Your task to perform on an android device: change notification settings in the gmail app Image 0: 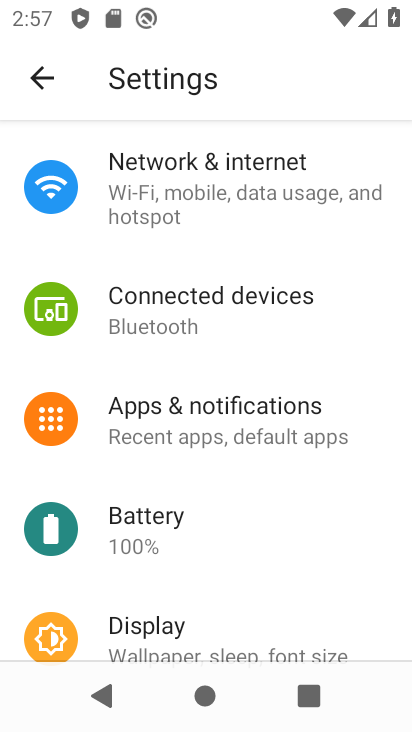
Step 0: press home button
Your task to perform on an android device: change notification settings in the gmail app Image 1: 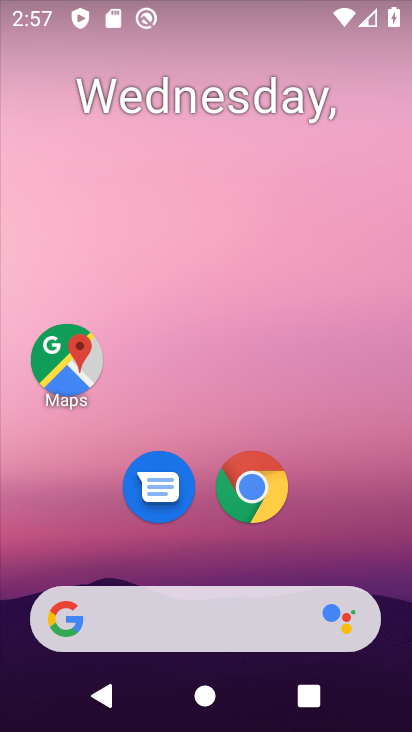
Step 1: drag from (337, 533) to (313, 130)
Your task to perform on an android device: change notification settings in the gmail app Image 2: 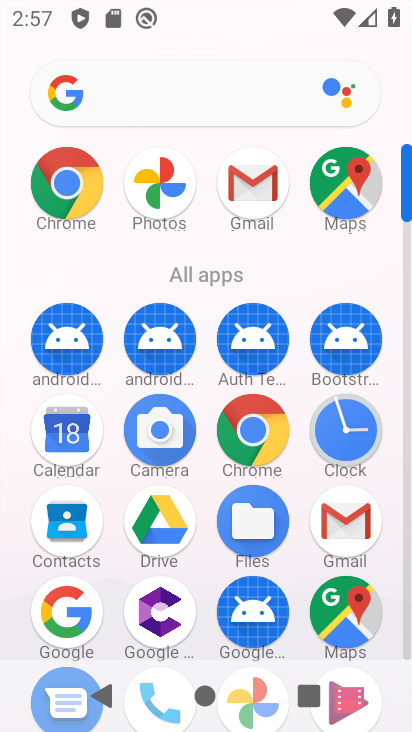
Step 2: click (359, 527)
Your task to perform on an android device: change notification settings in the gmail app Image 3: 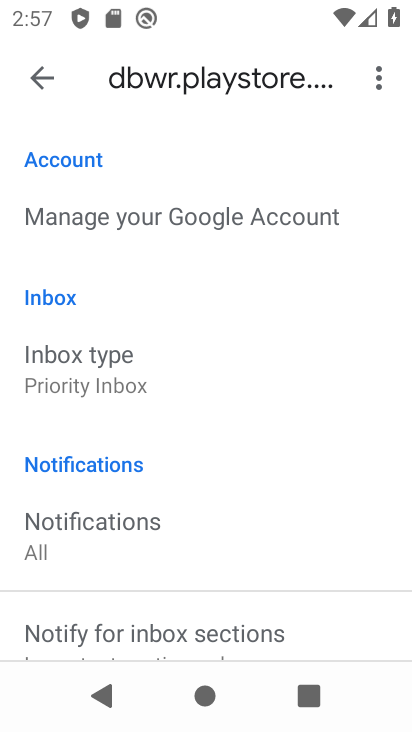
Step 3: drag from (359, 575) to (350, 374)
Your task to perform on an android device: change notification settings in the gmail app Image 4: 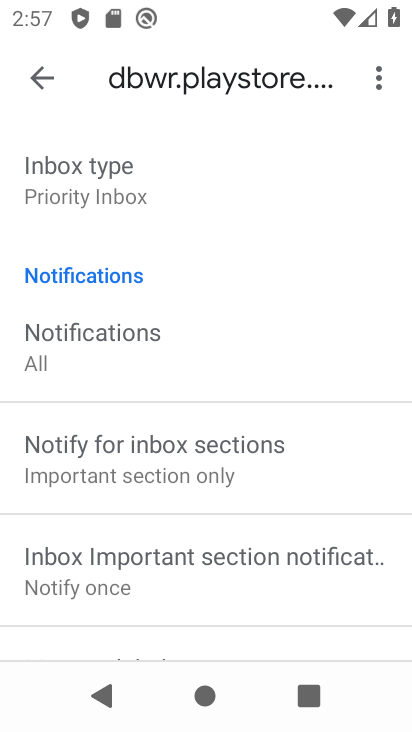
Step 4: drag from (365, 608) to (377, 396)
Your task to perform on an android device: change notification settings in the gmail app Image 5: 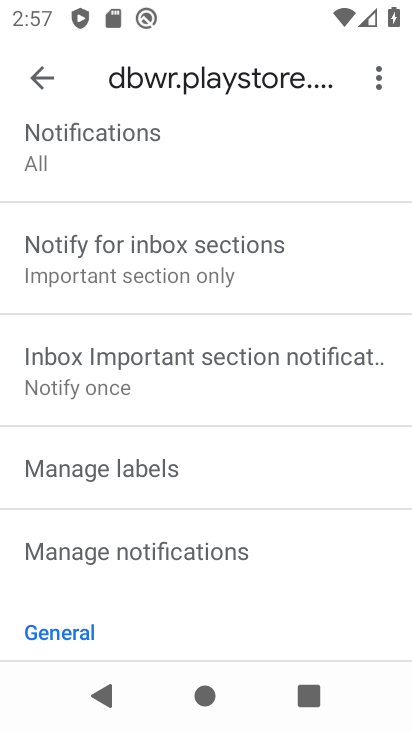
Step 5: drag from (355, 589) to (364, 419)
Your task to perform on an android device: change notification settings in the gmail app Image 6: 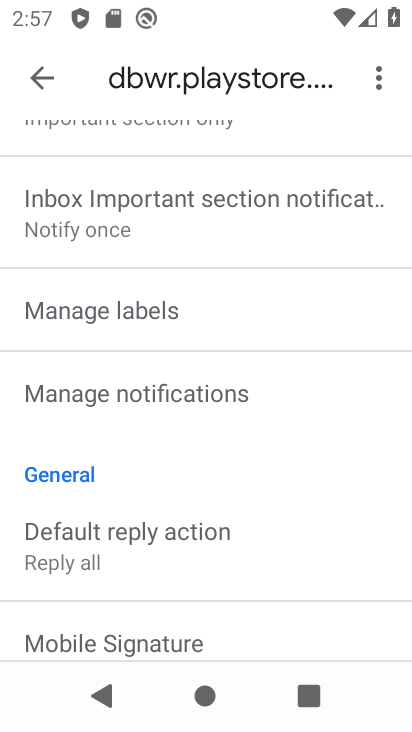
Step 6: drag from (348, 571) to (362, 407)
Your task to perform on an android device: change notification settings in the gmail app Image 7: 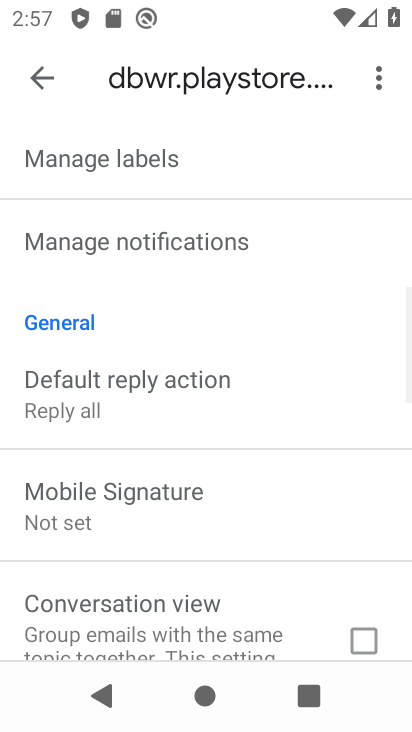
Step 7: drag from (342, 586) to (339, 393)
Your task to perform on an android device: change notification settings in the gmail app Image 8: 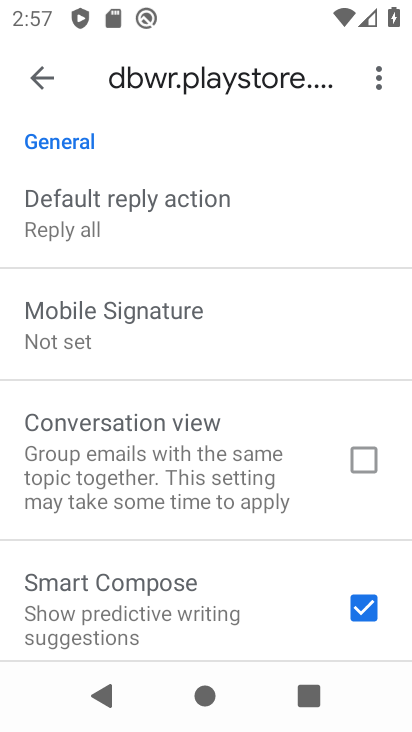
Step 8: drag from (300, 584) to (323, 414)
Your task to perform on an android device: change notification settings in the gmail app Image 9: 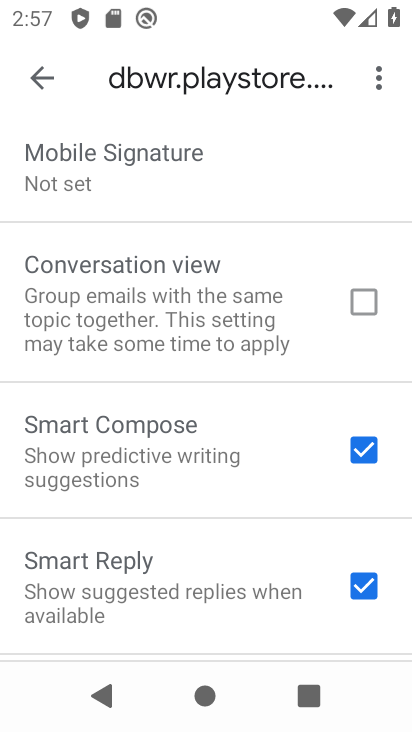
Step 9: drag from (297, 618) to (298, 501)
Your task to perform on an android device: change notification settings in the gmail app Image 10: 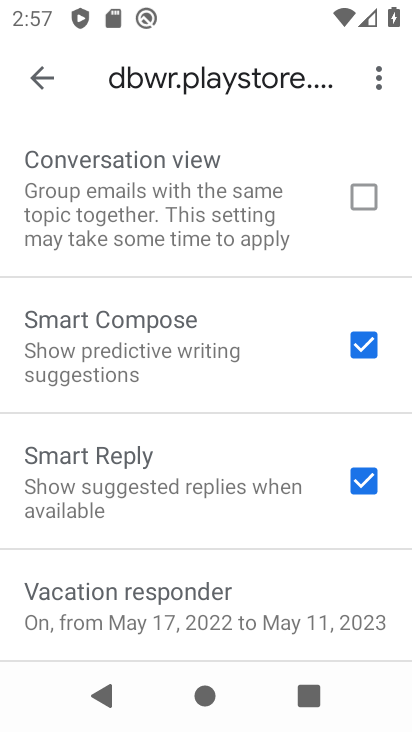
Step 10: drag from (303, 303) to (275, 458)
Your task to perform on an android device: change notification settings in the gmail app Image 11: 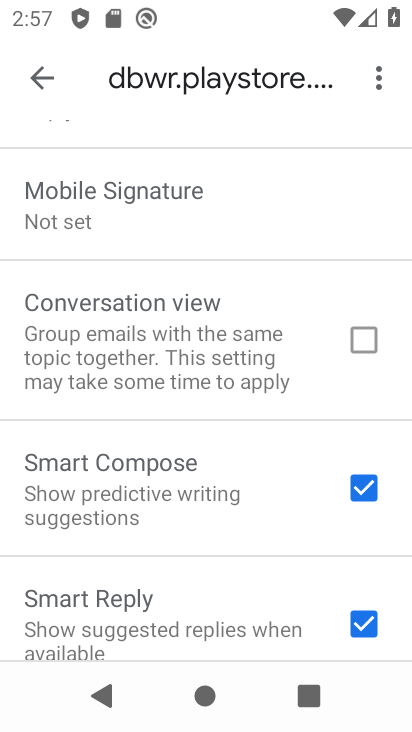
Step 11: drag from (314, 264) to (291, 434)
Your task to perform on an android device: change notification settings in the gmail app Image 12: 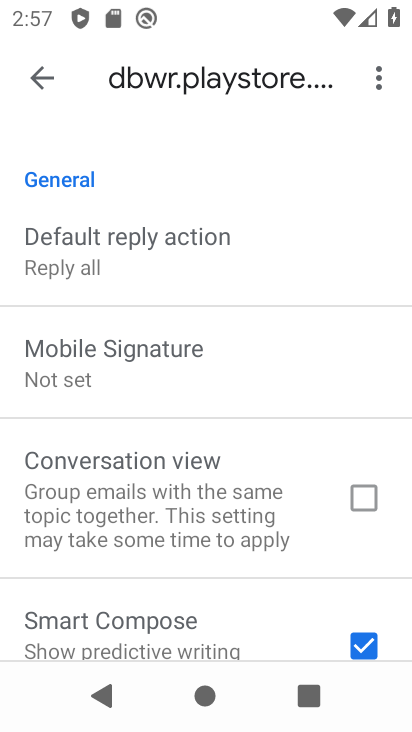
Step 12: drag from (289, 276) to (283, 396)
Your task to perform on an android device: change notification settings in the gmail app Image 13: 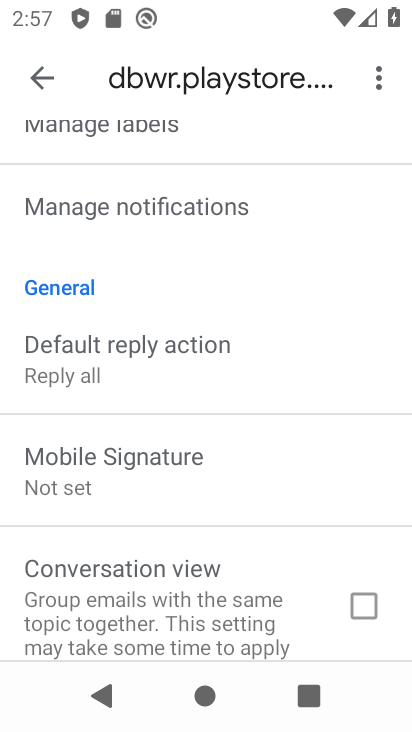
Step 13: drag from (289, 324) to (288, 477)
Your task to perform on an android device: change notification settings in the gmail app Image 14: 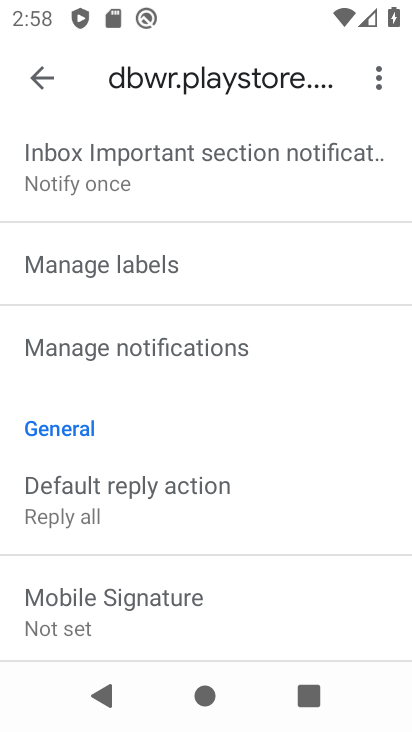
Step 14: click (240, 352)
Your task to perform on an android device: change notification settings in the gmail app Image 15: 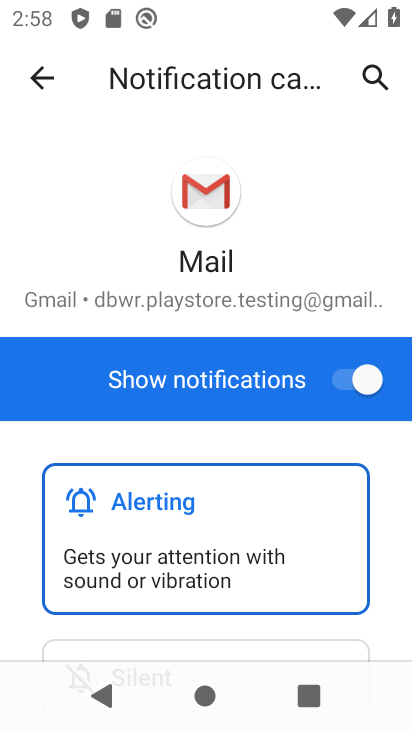
Step 15: click (361, 392)
Your task to perform on an android device: change notification settings in the gmail app Image 16: 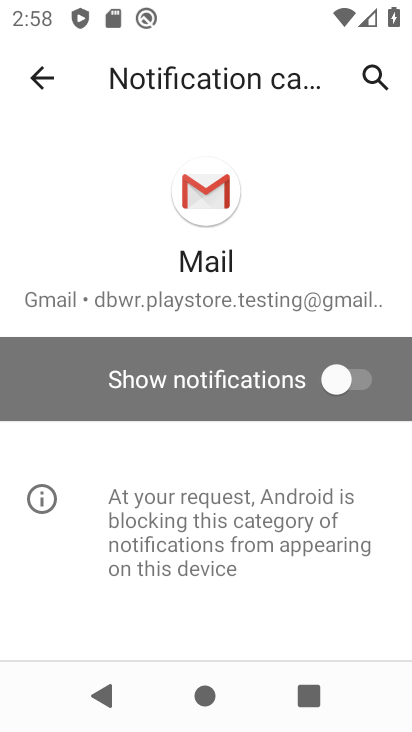
Step 16: task complete